Your task to perform on an android device: What is the recent news? Image 0: 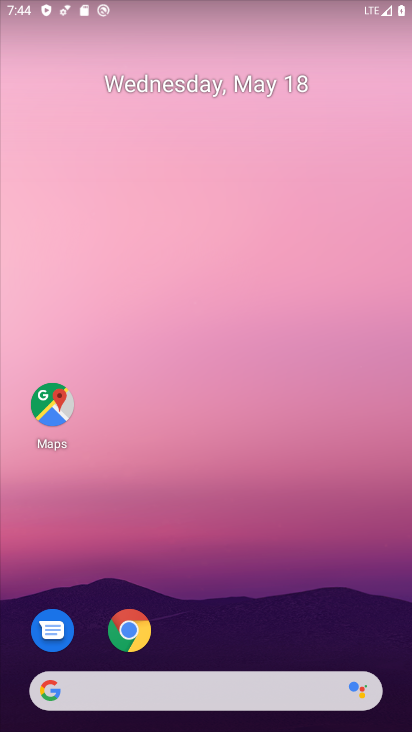
Step 0: drag from (264, 563) to (273, 66)
Your task to perform on an android device: What is the recent news? Image 1: 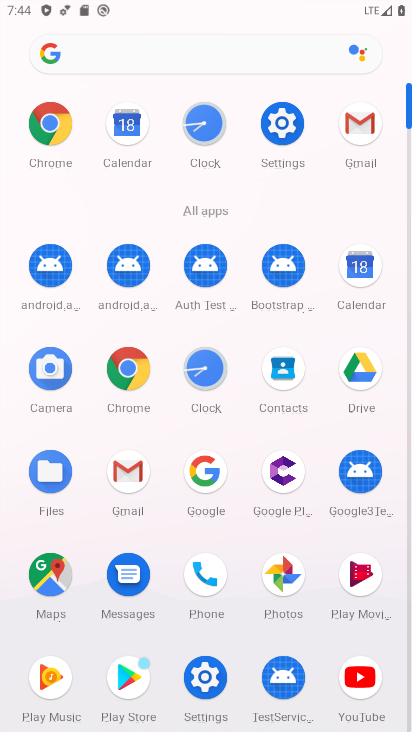
Step 1: click (38, 132)
Your task to perform on an android device: What is the recent news? Image 2: 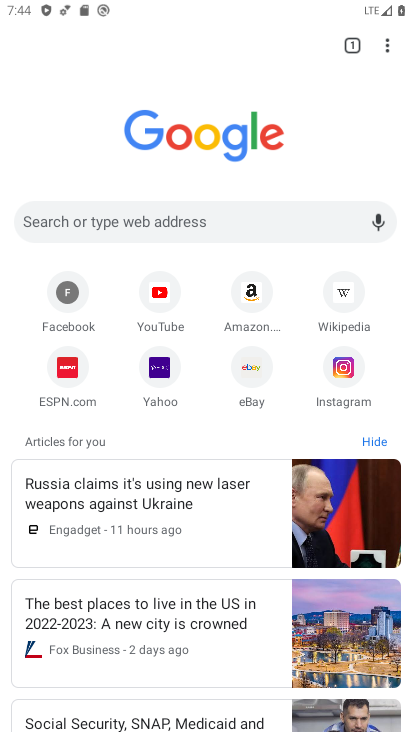
Step 2: task complete